Your task to perform on an android device: open a bookmark in the chrome app Image 0: 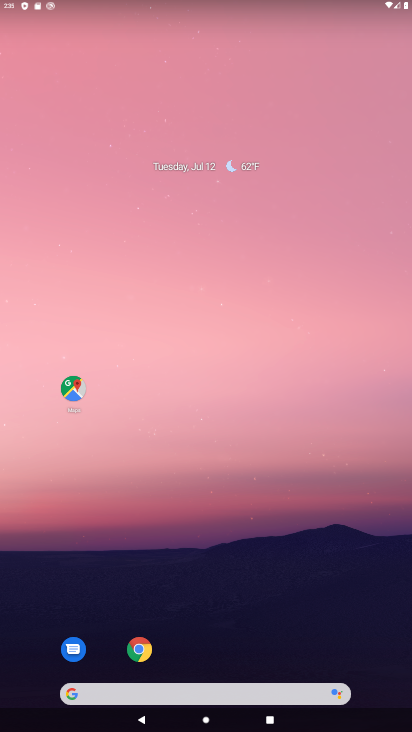
Step 0: click (129, 651)
Your task to perform on an android device: open a bookmark in the chrome app Image 1: 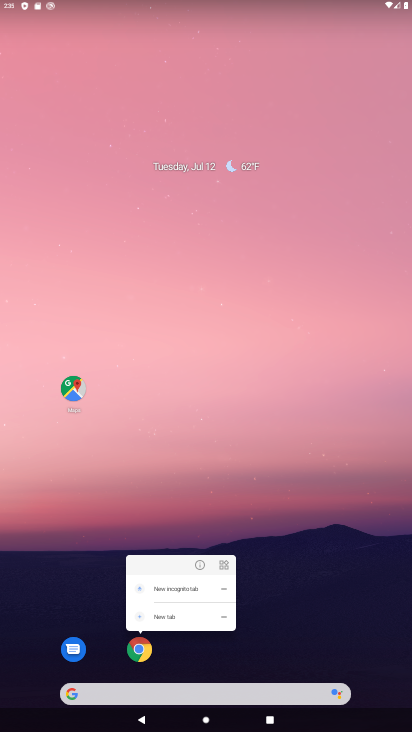
Step 1: click (129, 651)
Your task to perform on an android device: open a bookmark in the chrome app Image 2: 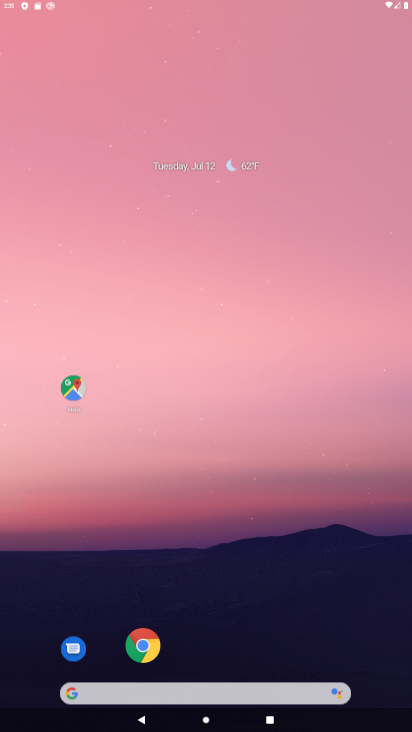
Step 2: click (132, 653)
Your task to perform on an android device: open a bookmark in the chrome app Image 3: 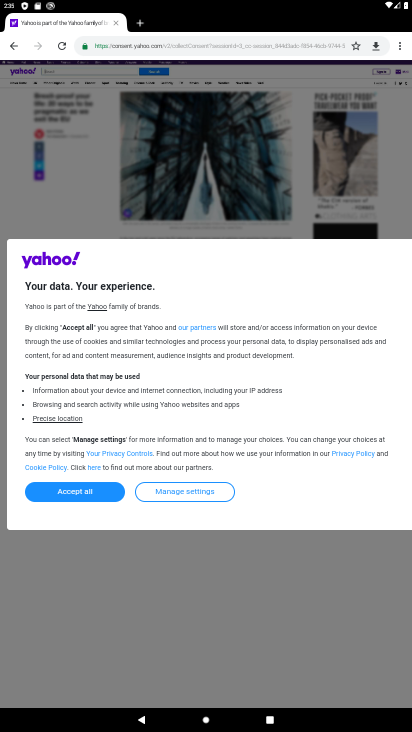
Step 3: drag from (401, 45) to (358, 100)
Your task to perform on an android device: open a bookmark in the chrome app Image 4: 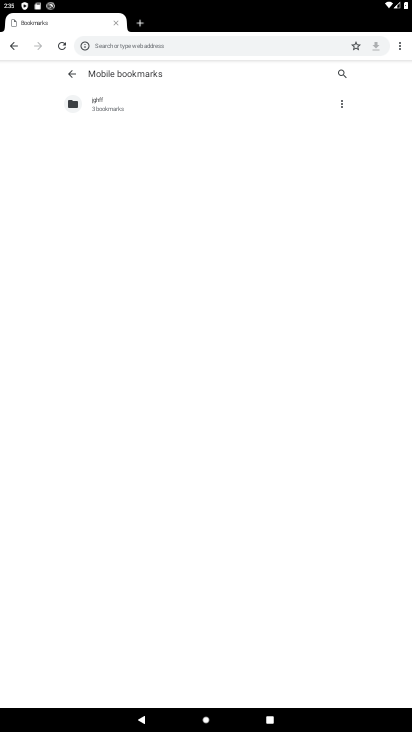
Step 4: click (153, 119)
Your task to perform on an android device: open a bookmark in the chrome app Image 5: 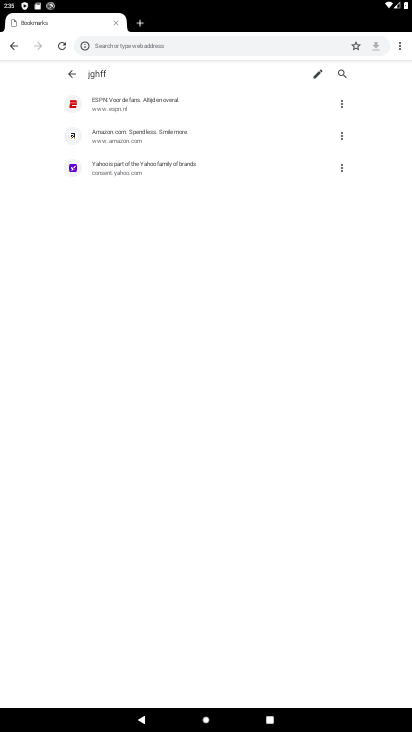
Step 5: click (132, 176)
Your task to perform on an android device: open a bookmark in the chrome app Image 6: 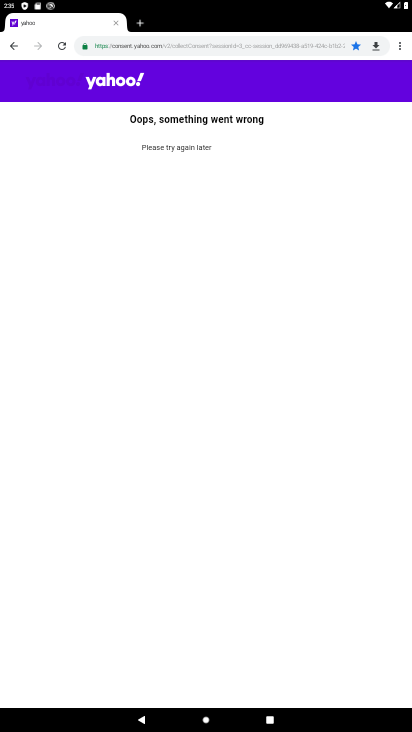
Step 6: task complete